Your task to perform on an android device: When is my next appointment? Image 0: 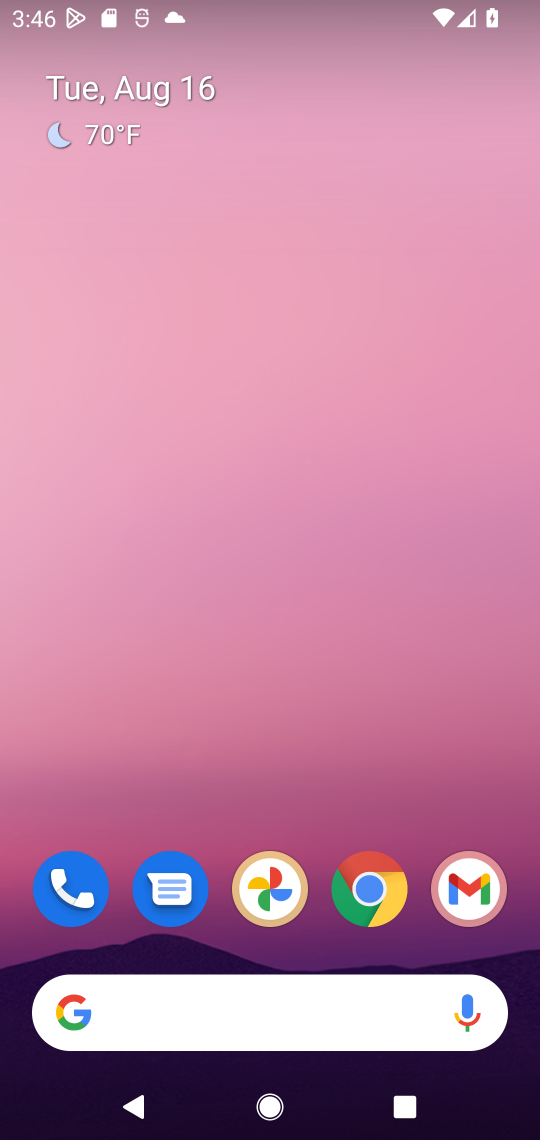
Step 0: drag from (265, 739) to (255, 309)
Your task to perform on an android device: When is my next appointment? Image 1: 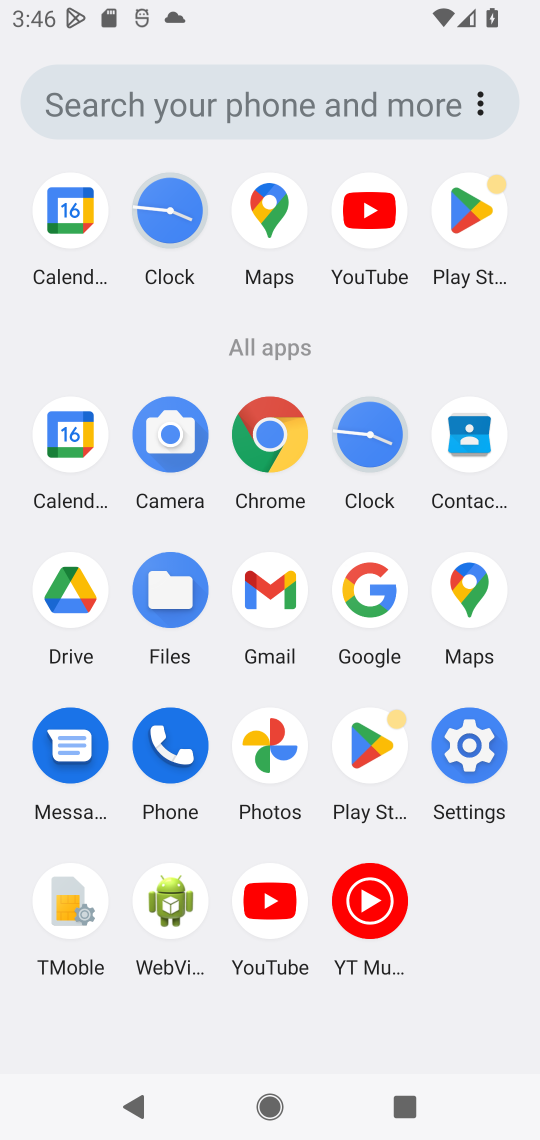
Step 1: click (66, 442)
Your task to perform on an android device: When is my next appointment? Image 2: 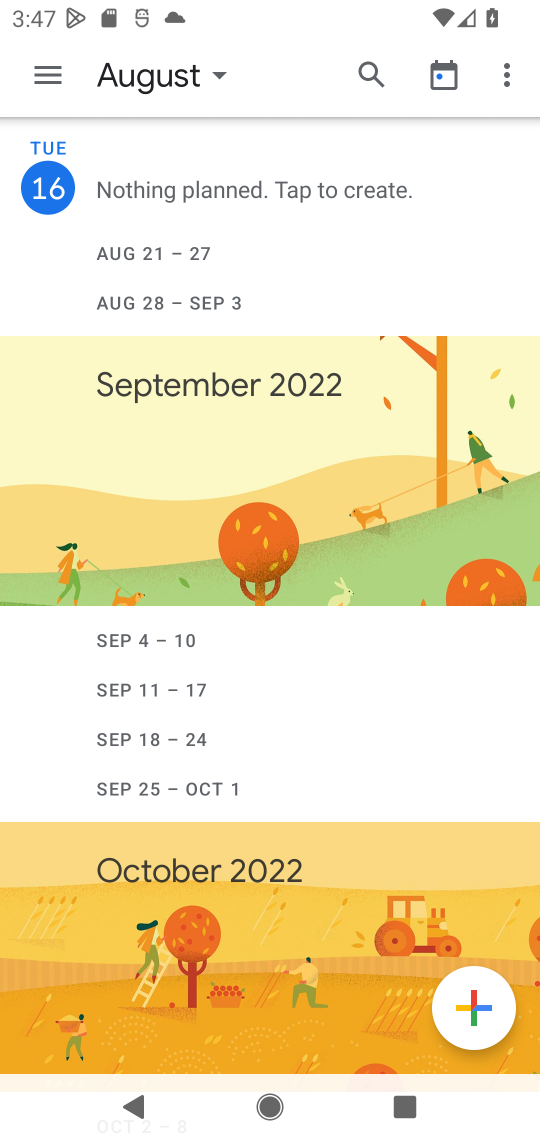
Step 2: task complete